Your task to perform on an android device: See recent photos Image 0: 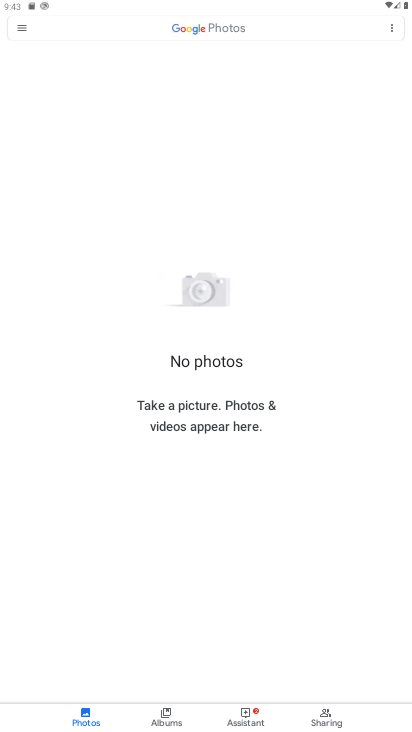
Step 0: press home button
Your task to perform on an android device: See recent photos Image 1: 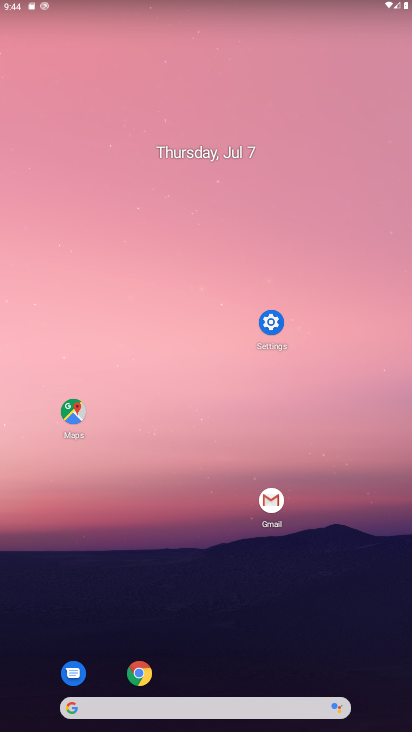
Step 1: drag from (392, 695) to (358, 96)
Your task to perform on an android device: See recent photos Image 2: 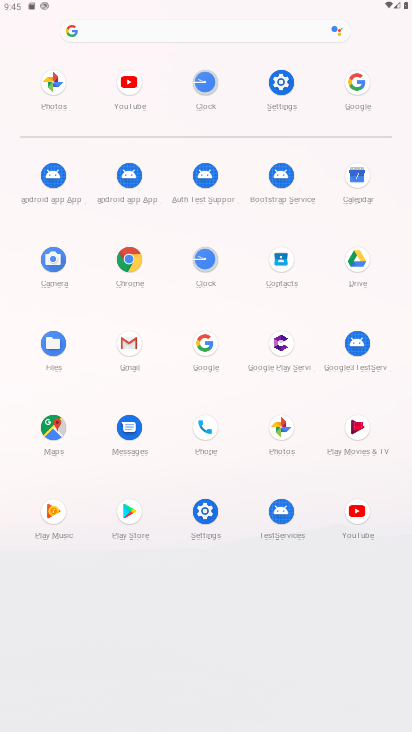
Step 2: click (283, 429)
Your task to perform on an android device: See recent photos Image 3: 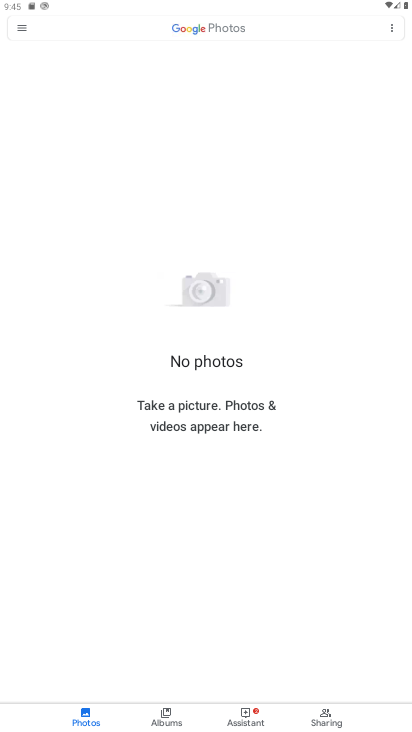
Step 3: click (85, 705)
Your task to perform on an android device: See recent photos Image 4: 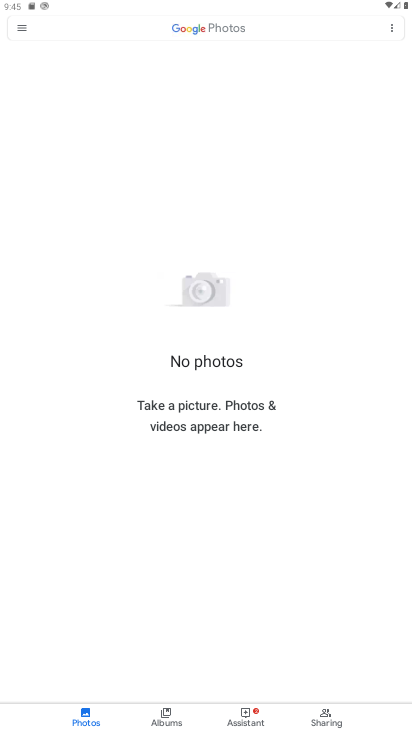
Step 4: task complete